Your task to perform on an android device: turn off improve location accuracy Image 0: 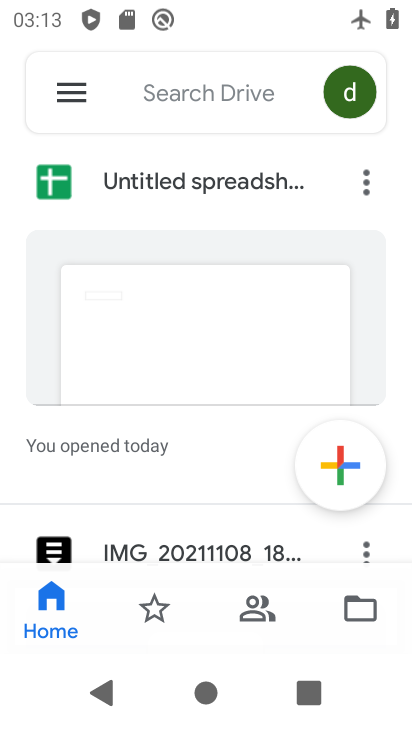
Step 0: press home button
Your task to perform on an android device: turn off improve location accuracy Image 1: 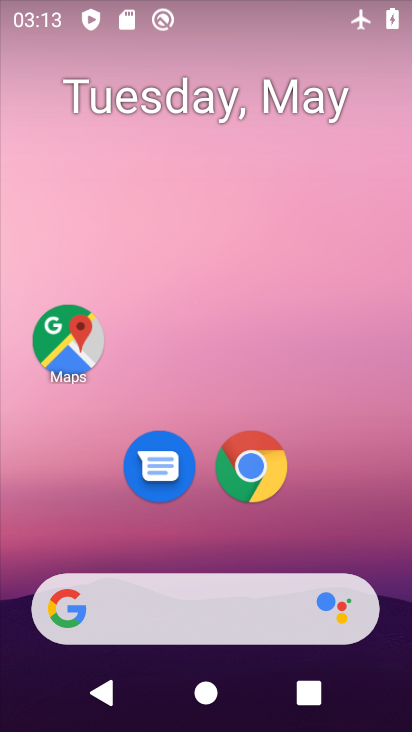
Step 1: drag from (336, 546) to (324, 326)
Your task to perform on an android device: turn off improve location accuracy Image 2: 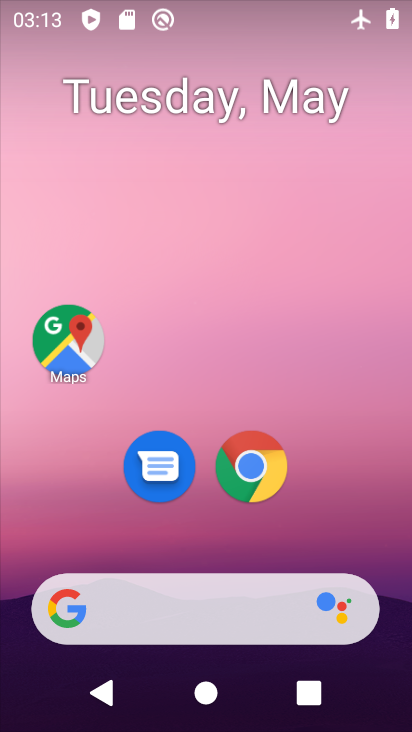
Step 2: drag from (319, 559) to (347, 312)
Your task to perform on an android device: turn off improve location accuracy Image 3: 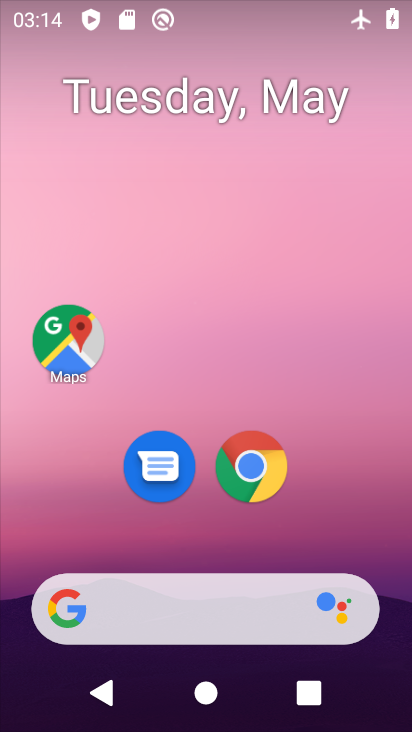
Step 3: drag from (294, 511) to (333, 259)
Your task to perform on an android device: turn off improve location accuracy Image 4: 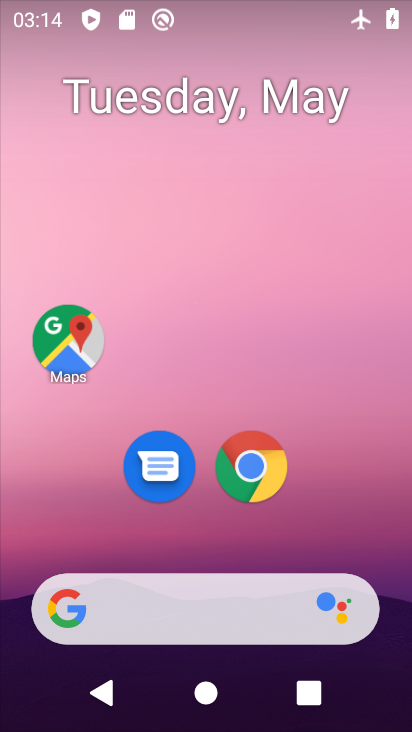
Step 4: drag from (292, 534) to (348, 213)
Your task to perform on an android device: turn off improve location accuracy Image 5: 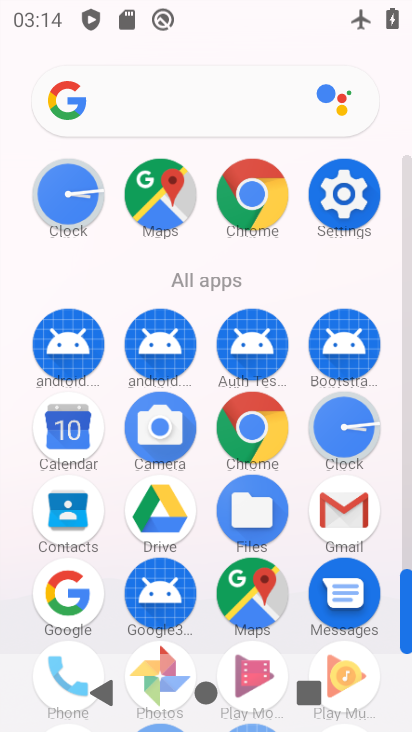
Step 5: click (360, 208)
Your task to perform on an android device: turn off improve location accuracy Image 6: 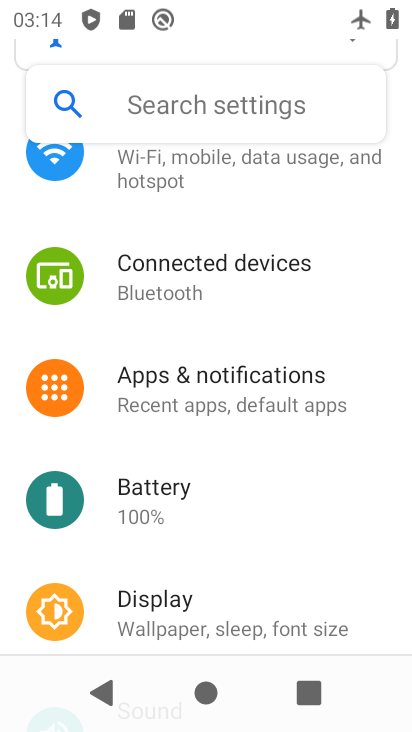
Step 6: drag from (200, 545) to (301, 171)
Your task to perform on an android device: turn off improve location accuracy Image 7: 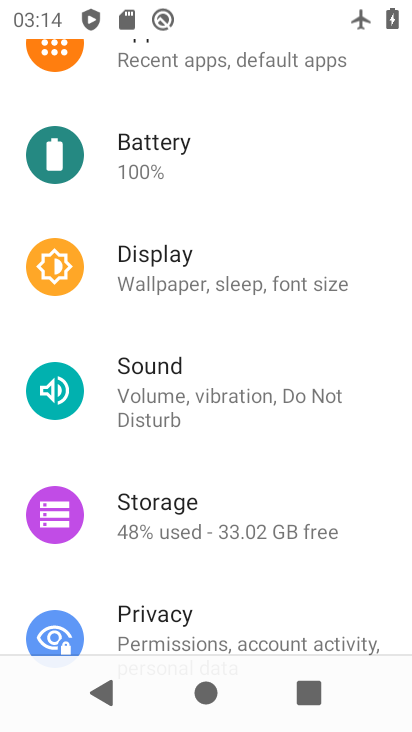
Step 7: drag from (208, 574) to (322, 173)
Your task to perform on an android device: turn off improve location accuracy Image 8: 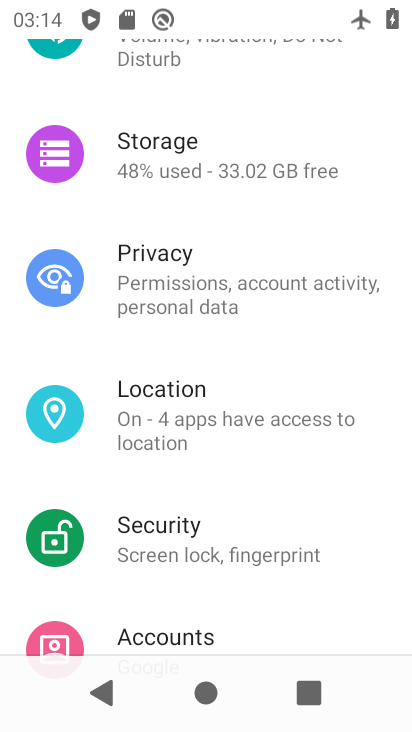
Step 8: click (223, 420)
Your task to perform on an android device: turn off improve location accuracy Image 9: 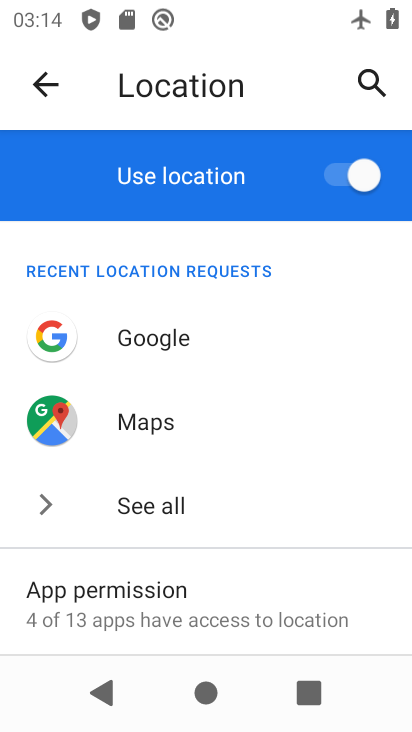
Step 9: drag from (251, 578) to (319, 238)
Your task to perform on an android device: turn off improve location accuracy Image 10: 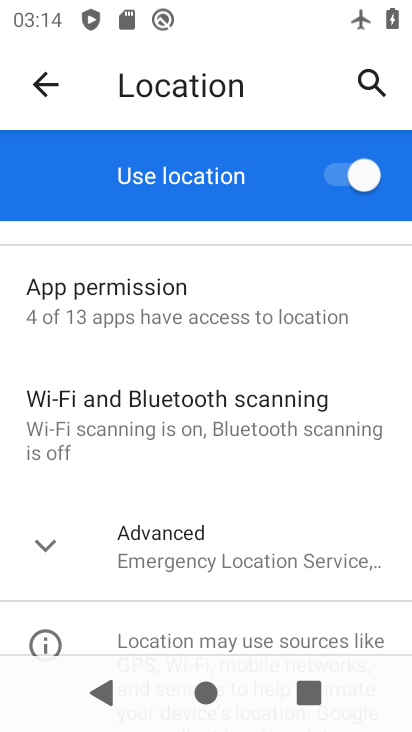
Step 10: click (218, 553)
Your task to perform on an android device: turn off improve location accuracy Image 11: 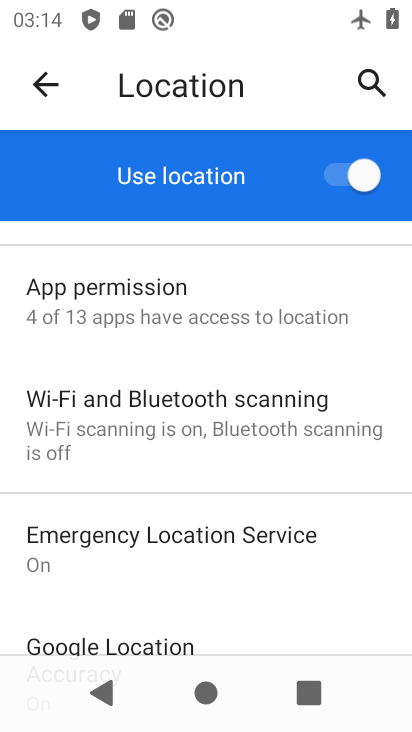
Step 11: drag from (208, 606) to (302, 312)
Your task to perform on an android device: turn off improve location accuracy Image 12: 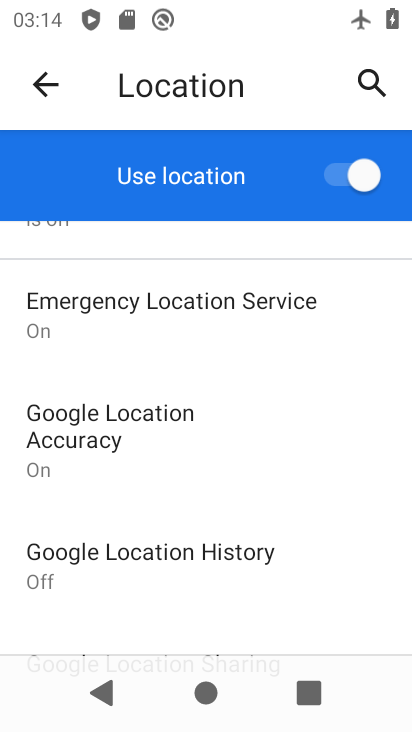
Step 12: click (180, 463)
Your task to perform on an android device: turn off improve location accuracy Image 13: 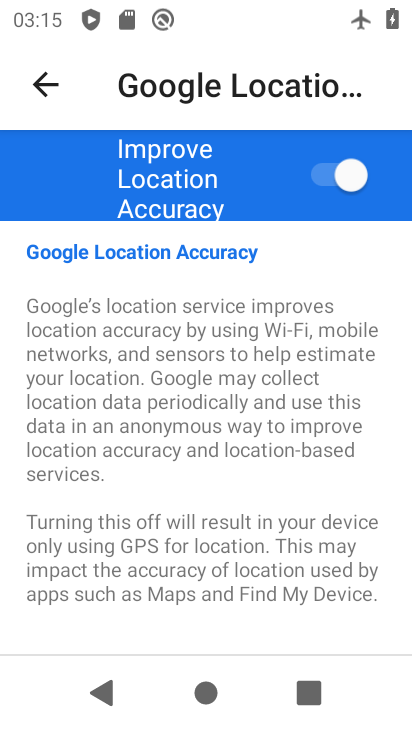
Step 13: click (315, 178)
Your task to perform on an android device: turn off improve location accuracy Image 14: 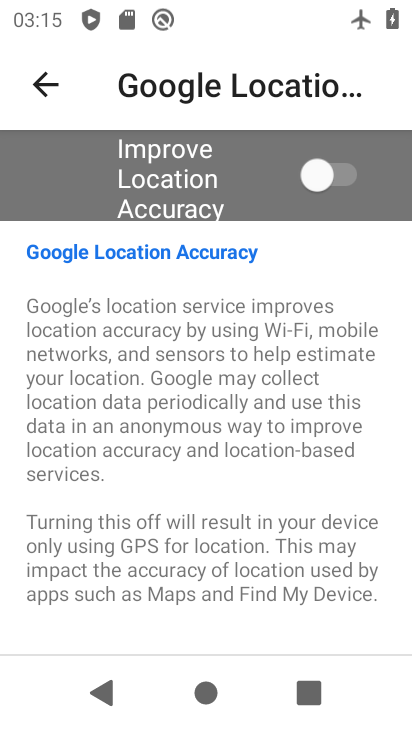
Step 14: task complete